Your task to perform on an android device: make emails show in primary in the gmail app Image 0: 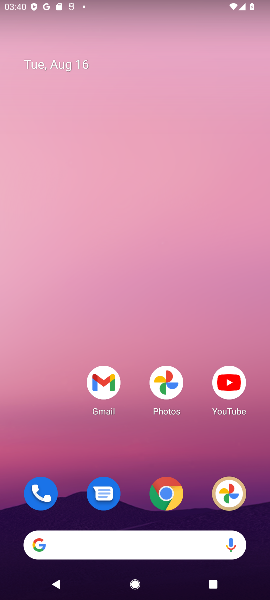
Step 0: press home button
Your task to perform on an android device: make emails show in primary in the gmail app Image 1: 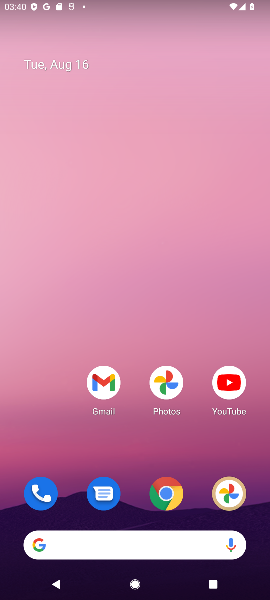
Step 1: drag from (67, 459) to (67, 140)
Your task to perform on an android device: make emails show in primary in the gmail app Image 2: 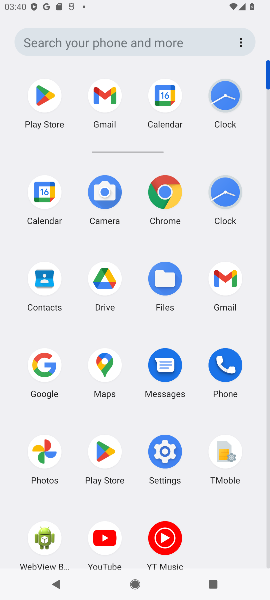
Step 2: click (222, 279)
Your task to perform on an android device: make emails show in primary in the gmail app Image 3: 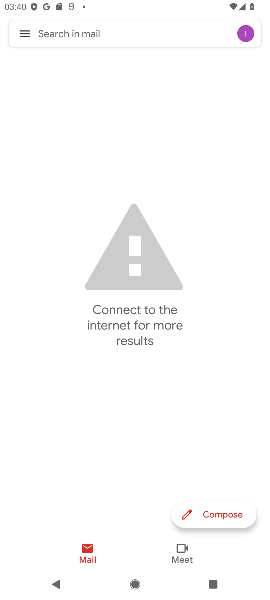
Step 3: click (26, 34)
Your task to perform on an android device: make emails show in primary in the gmail app Image 4: 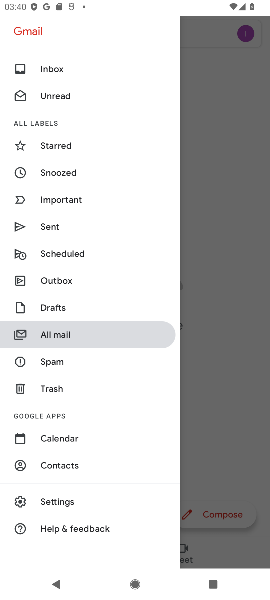
Step 4: click (82, 505)
Your task to perform on an android device: make emails show in primary in the gmail app Image 5: 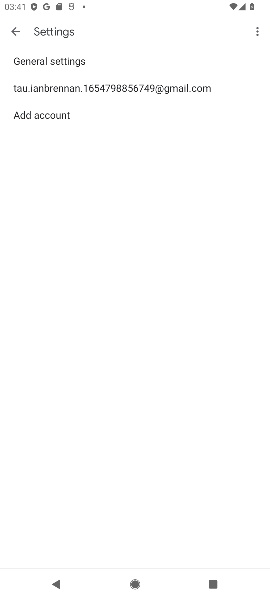
Step 5: click (137, 85)
Your task to perform on an android device: make emails show in primary in the gmail app Image 6: 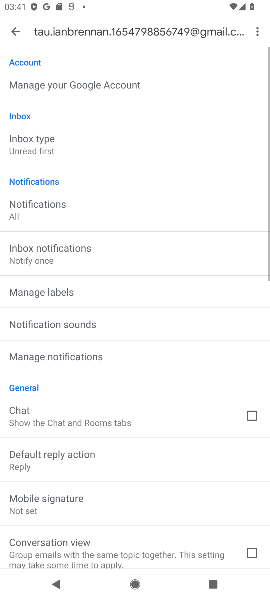
Step 6: drag from (163, 352) to (173, 285)
Your task to perform on an android device: make emails show in primary in the gmail app Image 7: 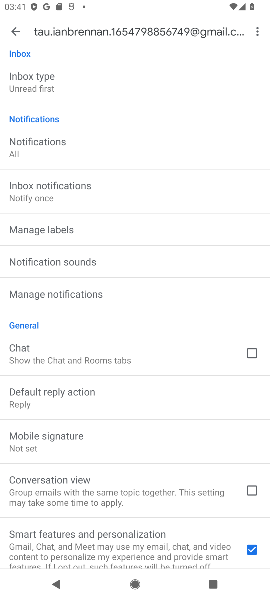
Step 7: drag from (178, 407) to (178, 305)
Your task to perform on an android device: make emails show in primary in the gmail app Image 8: 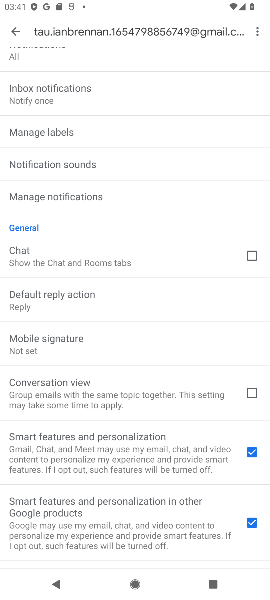
Step 8: drag from (181, 459) to (185, 316)
Your task to perform on an android device: make emails show in primary in the gmail app Image 9: 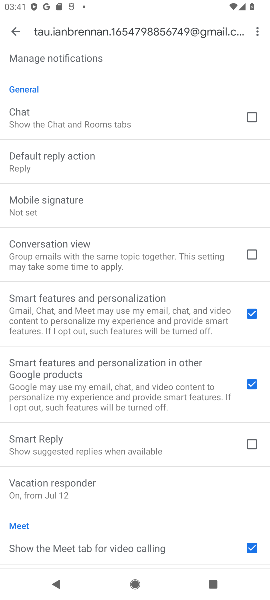
Step 9: drag from (183, 447) to (184, 331)
Your task to perform on an android device: make emails show in primary in the gmail app Image 10: 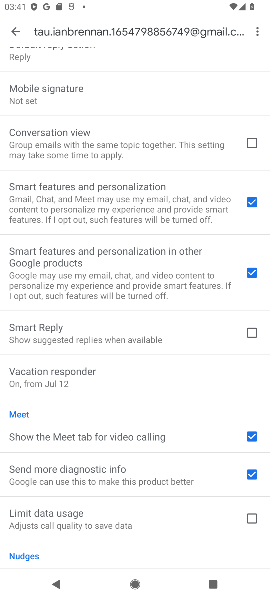
Step 10: drag from (182, 535) to (191, 373)
Your task to perform on an android device: make emails show in primary in the gmail app Image 11: 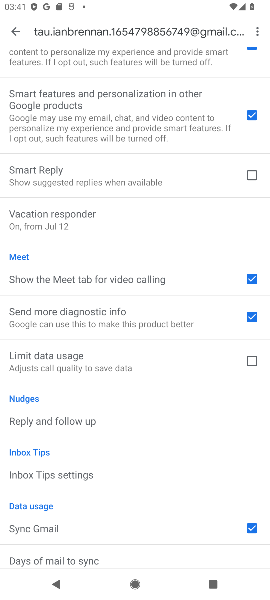
Step 11: drag from (162, 500) to (168, 366)
Your task to perform on an android device: make emails show in primary in the gmail app Image 12: 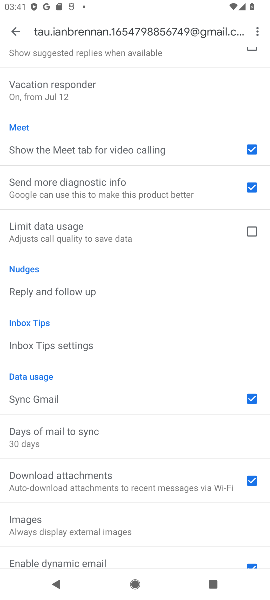
Step 12: drag from (182, 496) to (193, 242)
Your task to perform on an android device: make emails show in primary in the gmail app Image 13: 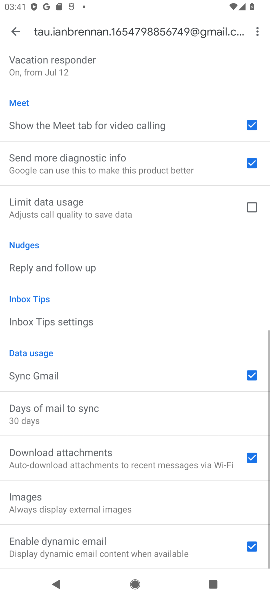
Step 13: drag from (208, 101) to (212, 246)
Your task to perform on an android device: make emails show in primary in the gmail app Image 14: 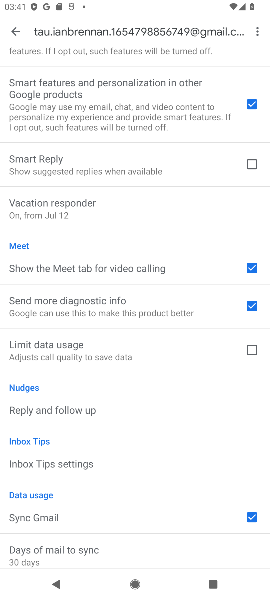
Step 14: drag from (193, 128) to (195, 265)
Your task to perform on an android device: make emails show in primary in the gmail app Image 15: 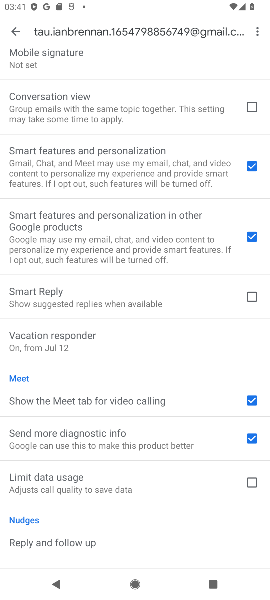
Step 15: drag from (197, 95) to (208, 225)
Your task to perform on an android device: make emails show in primary in the gmail app Image 16: 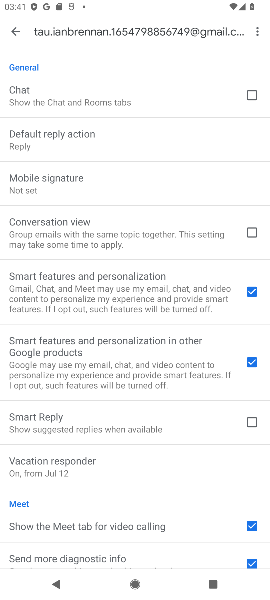
Step 16: drag from (181, 96) to (182, 255)
Your task to perform on an android device: make emails show in primary in the gmail app Image 17: 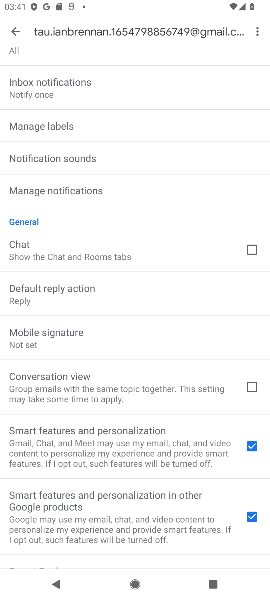
Step 17: drag from (176, 77) to (181, 280)
Your task to perform on an android device: make emails show in primary in the gmail app Image 18: 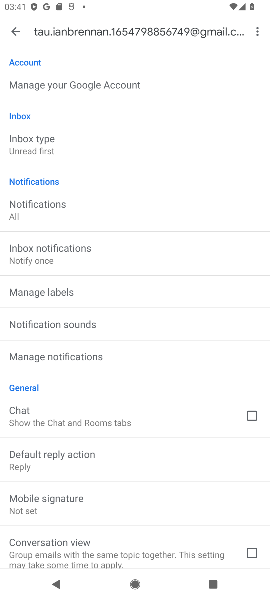
Step 18: click (62, 138)
Your task to perform on an android device: make emails show in primary in the gmail app Image 19: 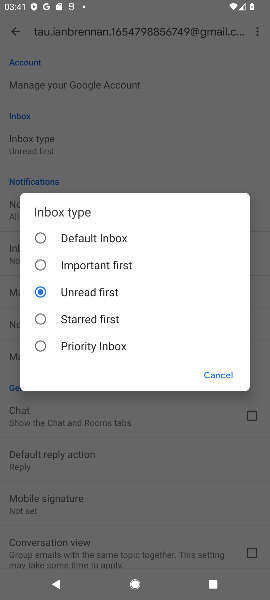
Step 19: click (98, 244)
Your task to perform on an android device: make emails show in primary in the gmail app Image 20: 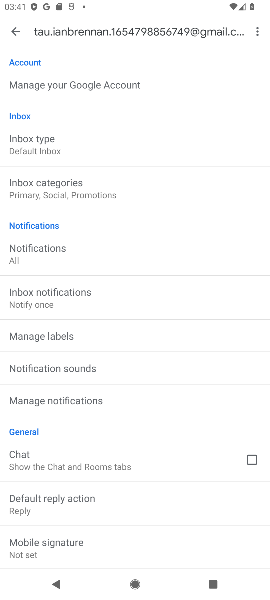
Step 20: click (74, 183)
Your task to perform on an android device: make emails show in primary in the gmail app Image 21: 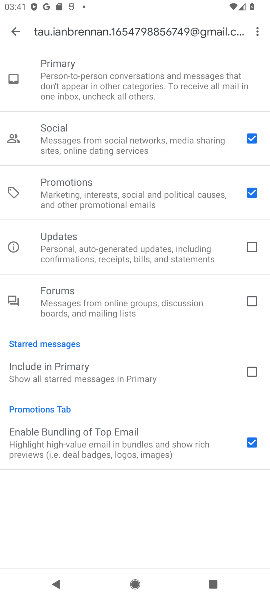
Step 21: click (242, 192)
Your task to perform on an android device: make emails show in primary in the gmail app Image 22: 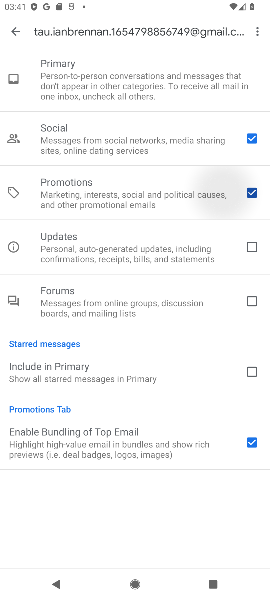
Step 22: click (255, 135)
Your task to perform on an android device: make emails show in primary in the gmail app Image 23: 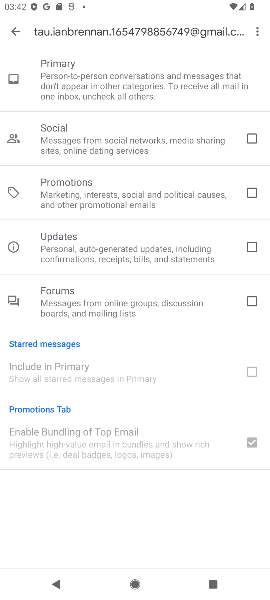
Step 23: task complete